Your task to perform on an android device: allow notifications from all sites in the chrome app Image 0: 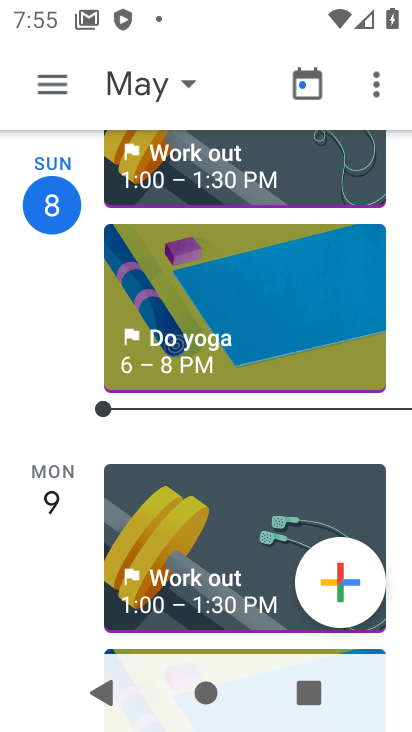
Step 0: press back button
Your task to perform on an android device: allow notifications from all sites in the chrome app Image 1: 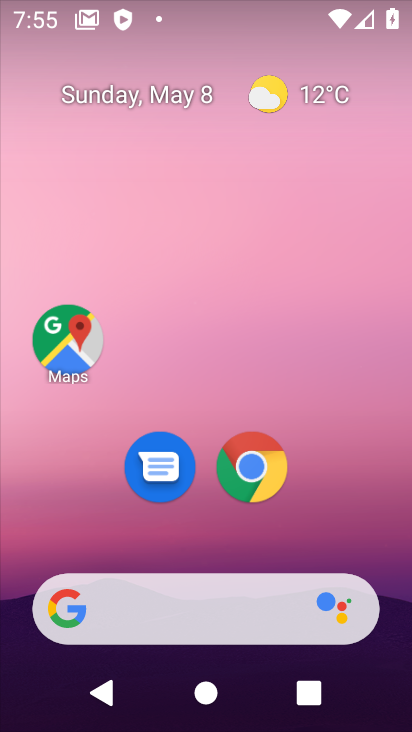
Step 1: click (246, 468)
Your task to perform on an android device: allow notifications from all sites in the chrome app Image 2: 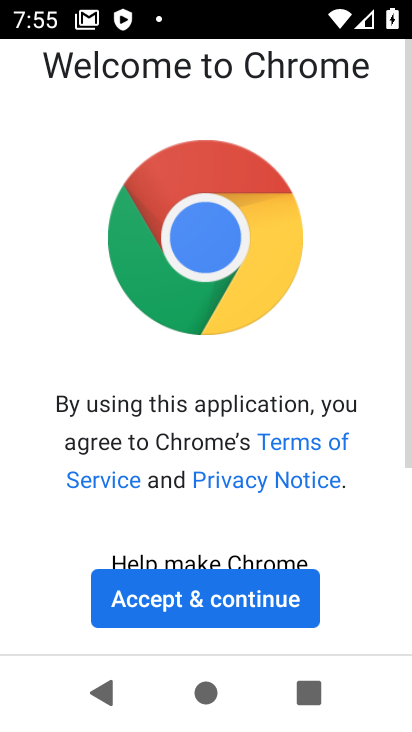
Step 2: click (158, 626)
Your task to perform on an android device: allow notifications from all sites in the chrome app Image 3: 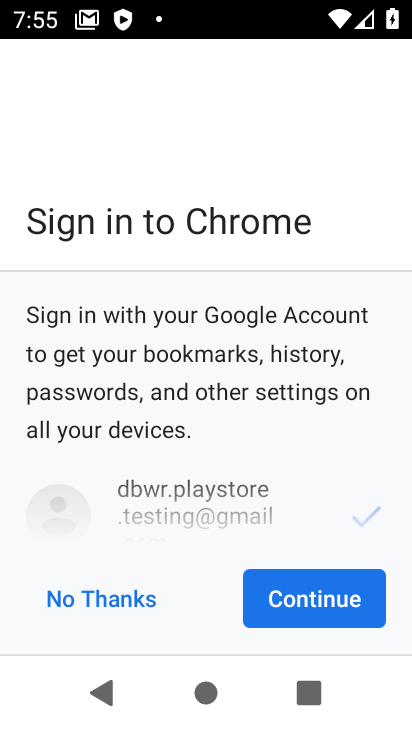
Step 3: click (333, 608)
Your task to perform on an android device: allow notifications from all sites in the chrome app Image 4: 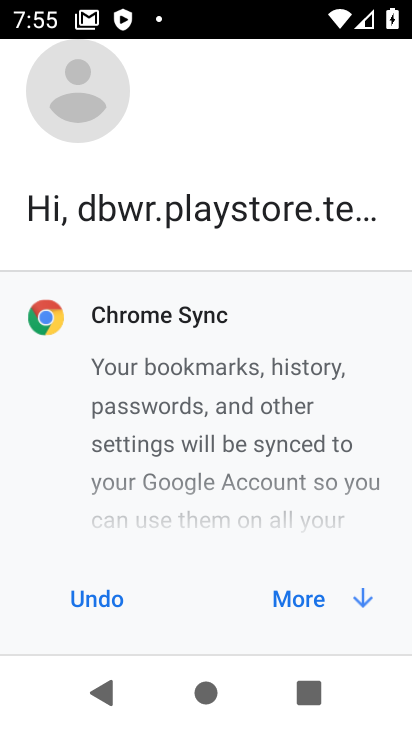
Step 4: click (288, 597)
Your task to perform on an android device: allow notifications from all sites in the chrome app Image 5: 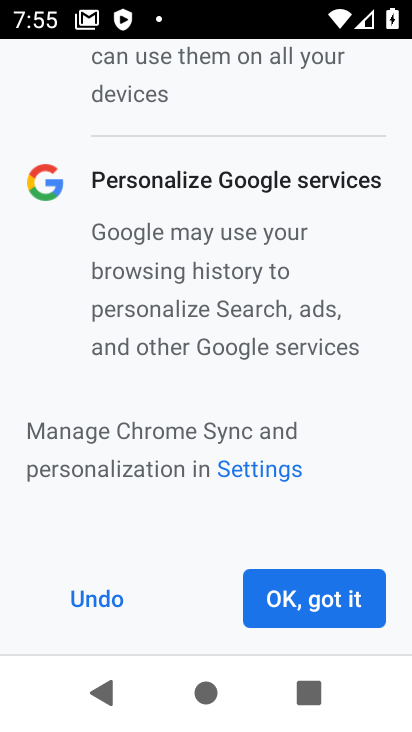
Step 5: click (287, 597)
Your task to perform on an android device: allow notifications from all sites in the chrome app Image 6: 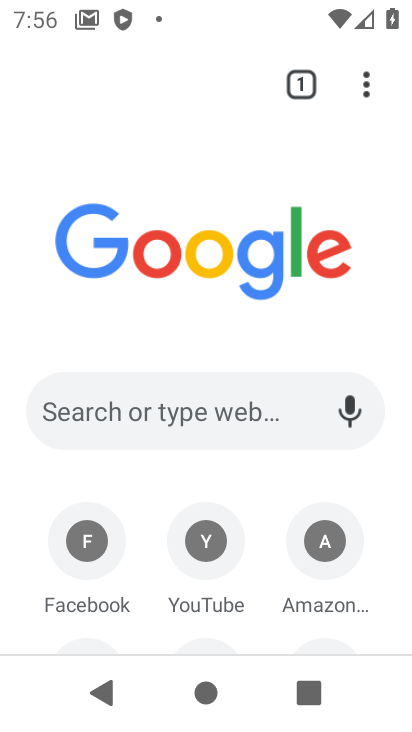
Step 6: click (364, 85)
Your task to perform on an android device: allow notifications from all sites in the chrome app Image 7: 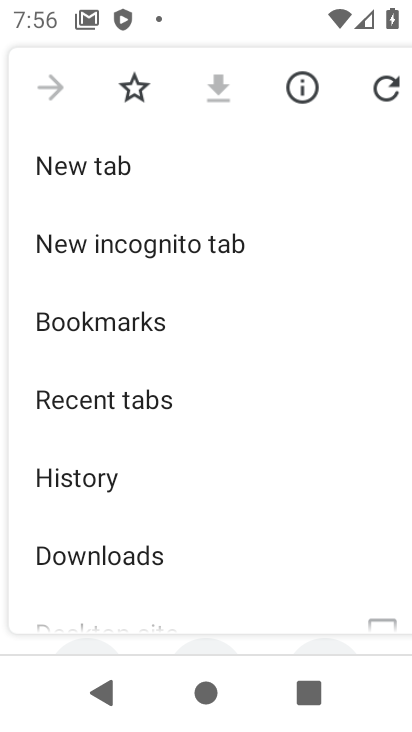
Step 7: drag from (218, 536) to (288, 43)
Your task to perform on an android device: allow notifications from all sites in the chrome app Image 8: 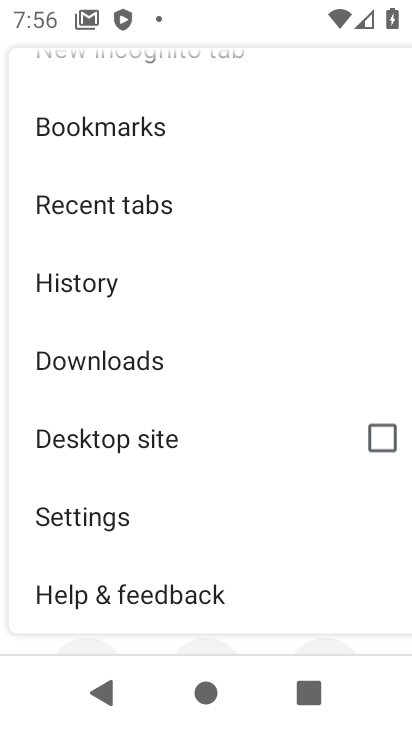
Step 8: click (76, 506)
Your task to perform on an android device: allow notifications from all sites in the chrome app Image 9: 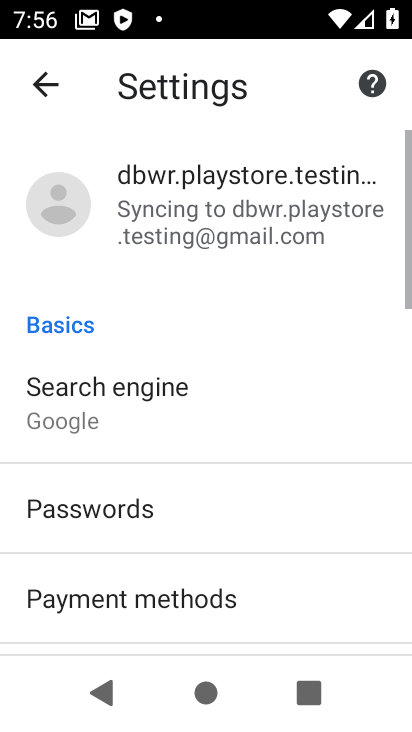
Step 9: drag from (102, 567) to (201, 234)
Your task to perform on an android device: allow notifications from all sites in the chrome app Image 10: 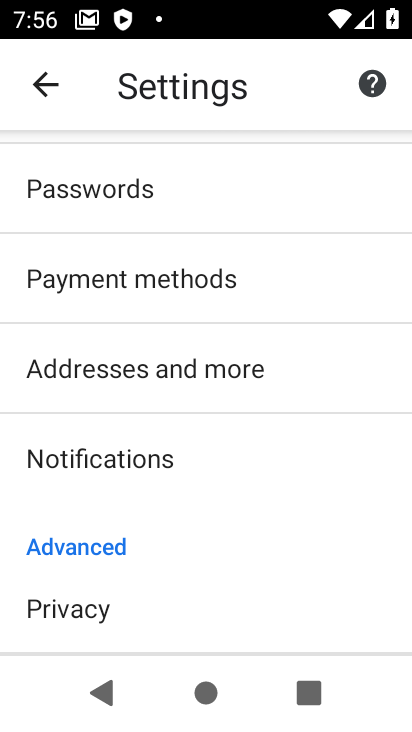
Step 10: press back button
Your task to perform on an android device: allow notifications from all sites in the chrome app Image 11: 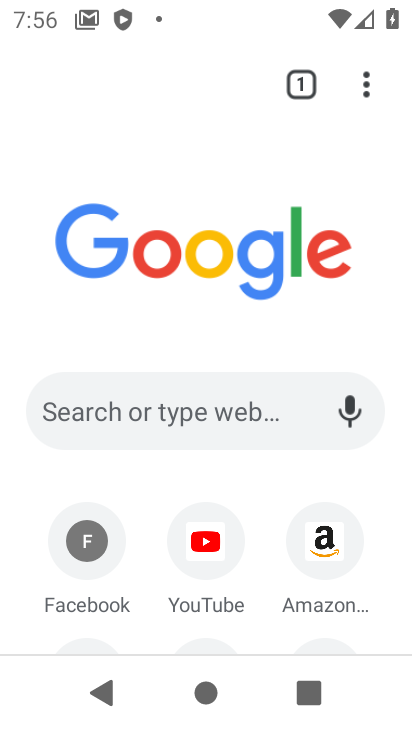
Step 11: click (337, 72)
Your task to perform on an android device: allow notifications from all sites in the chrome app Image 12: 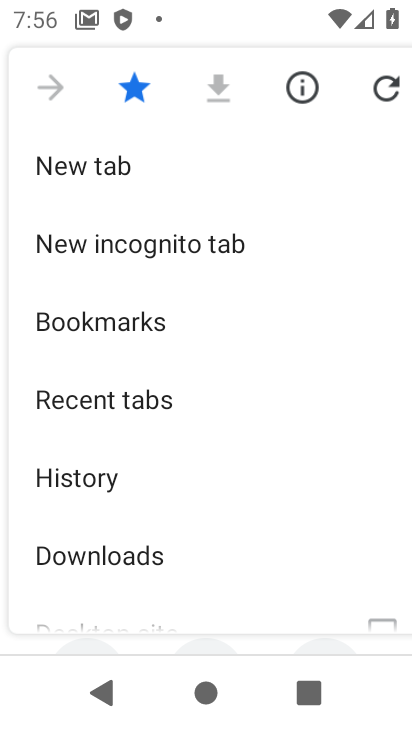
Step 12: drag from (187, 526) to (282, 30)
Your task to perform on an android device: allow notifications from all sites in the chrome app Image 13: 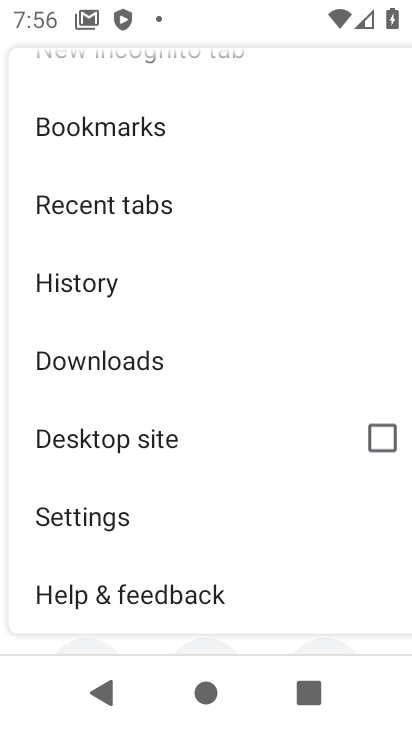
Step 13: click (94, 515)
Your task to perform on an android device: allow notifications from all sites in the chrome app Image 14: 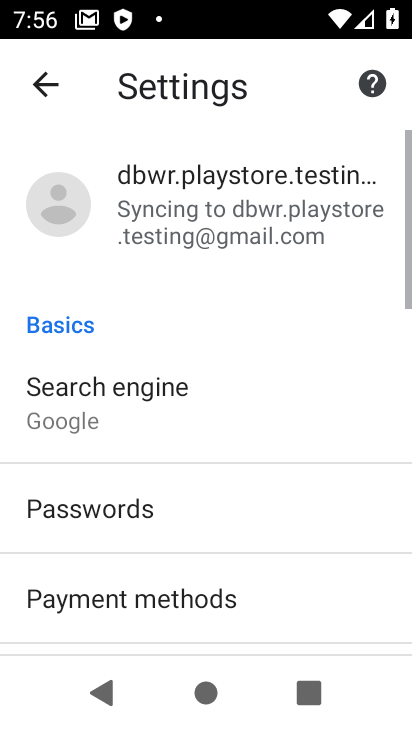
Step 14: drag from (135, 564) to (295, 53)
Your task to perform on an android device: allow notifications from all sites in the chrome app Image 15: 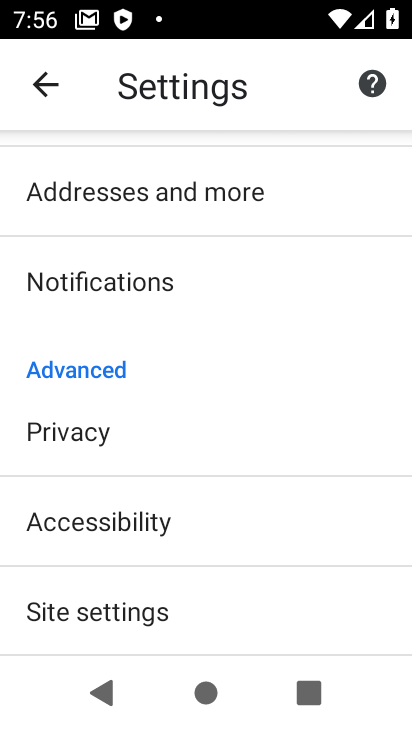
Step 15: click (89, 604)
Your task to perform on an android device: allow notifications from all sites in the chrome app Image 16: 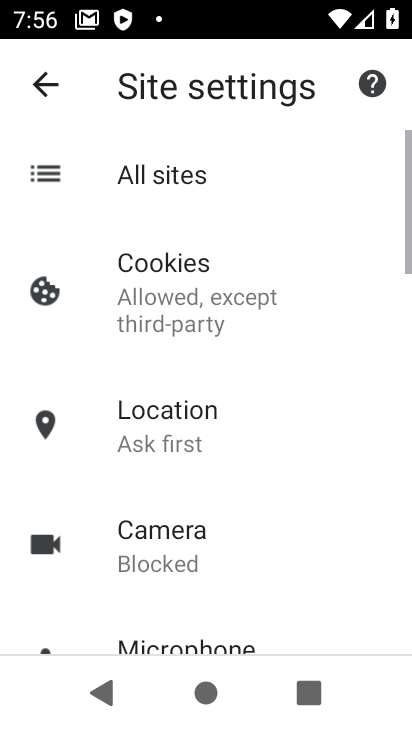
Step 16: drag from (213, 617) to (314, 209)
Your task to perform on an android device: allow notifications from all sites in the chrome app Image 17: 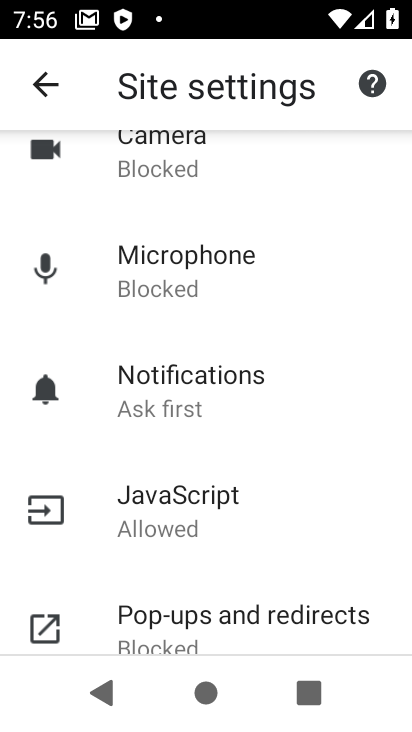
Step 17: click (168, 376)
Your task to perform on an android device: allow notifications from all sites in the chrome app Image 18: 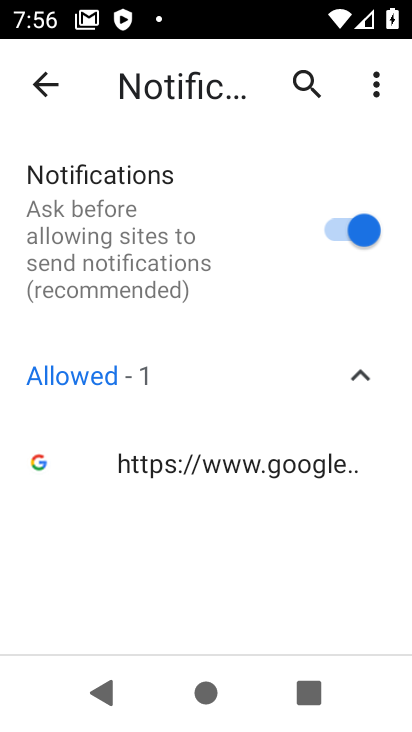
Step 18: task complete